Your task to perform on an android device: see sites visited before in the chrome app Image 0: 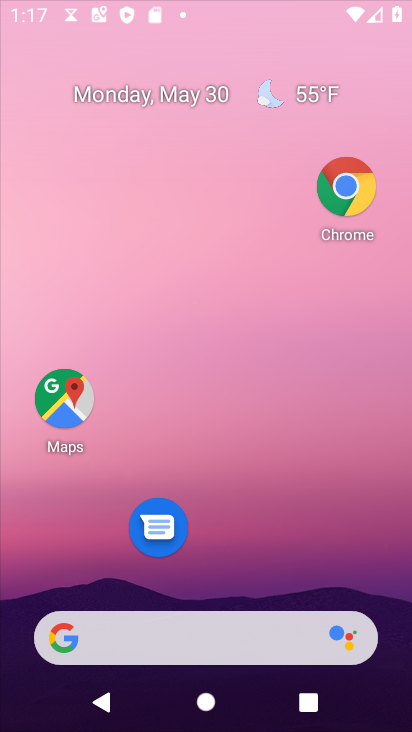
Step 0: drag from (224, 579) to (227, 183)
Your task to perform on an android device: see sites visited before in the chrome app Image 1: 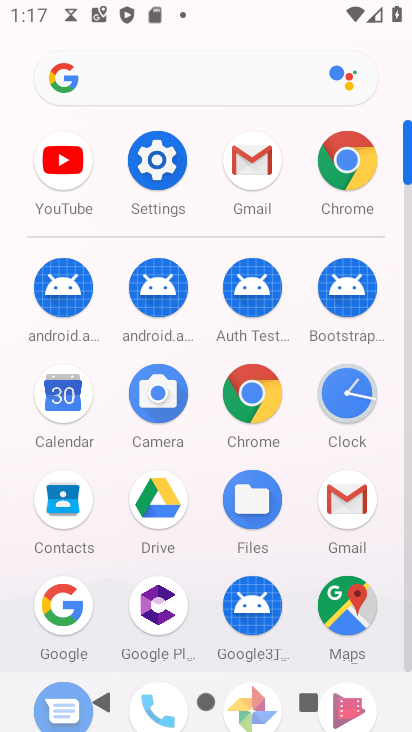
Step 1: click (246, 397)
Your task to perform on an android device: see sites visited before in the chrome app Image 2: 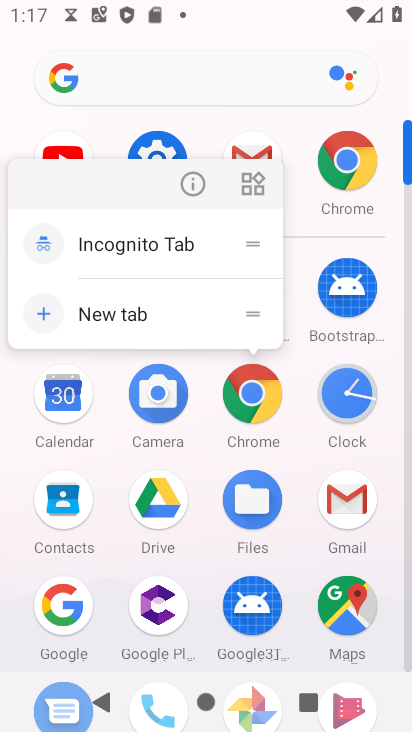
Step 2: click (194, 177)
Your task to perform on an android device: see sites visited before in the chrome app Image 3: 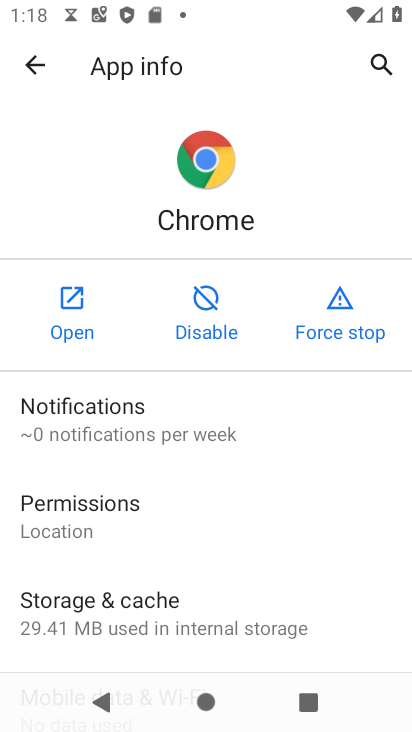
Step 3: click (62, 312)
Your task to perform on an android device: see sites visited before in the chrome app Image 4: 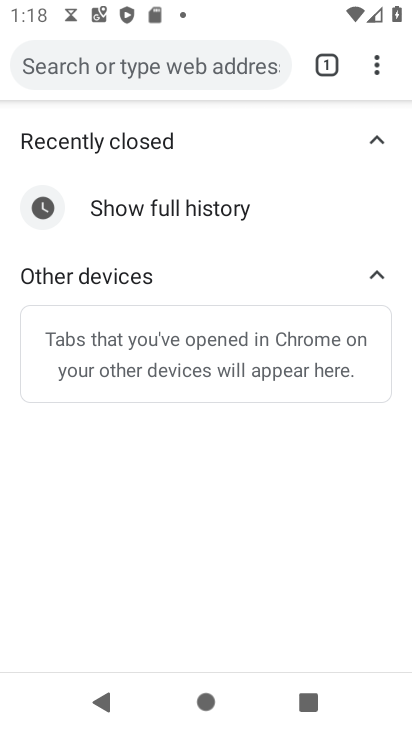
Step 4: task complete